Your task to perform on an android device: set an alarm Image 0: 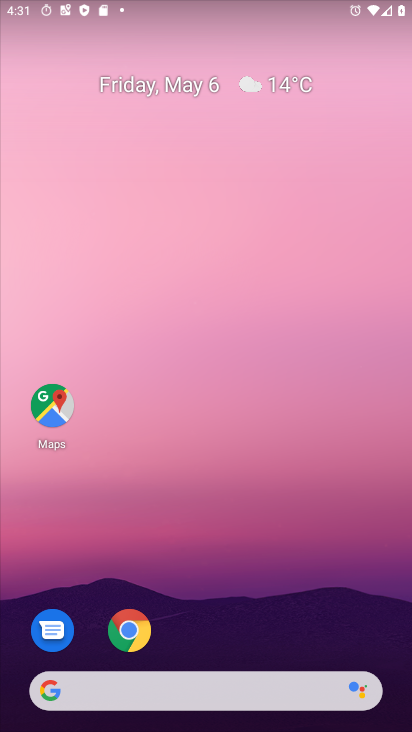
Step 0: drag from (221, 655) to (154, 5)
Your task to perform on an android device: set an alarm Image 1: 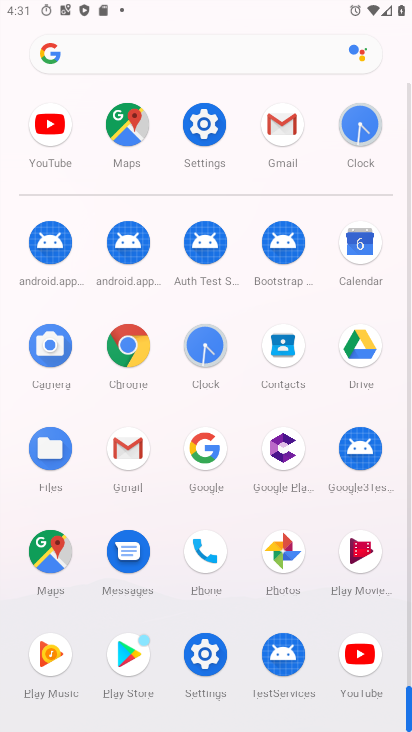
Step 1: click (196, 338)
Your task to perform on an android device: set an alarm Image 2: 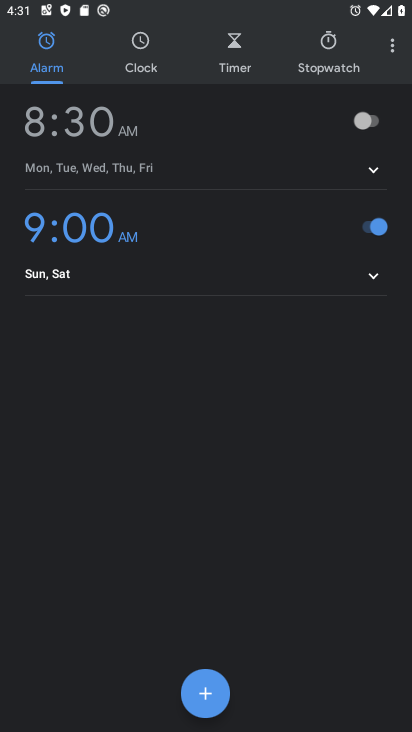
Step 2: click (364, 119)
Your task to perform on an android device: set an alarm Image 3: 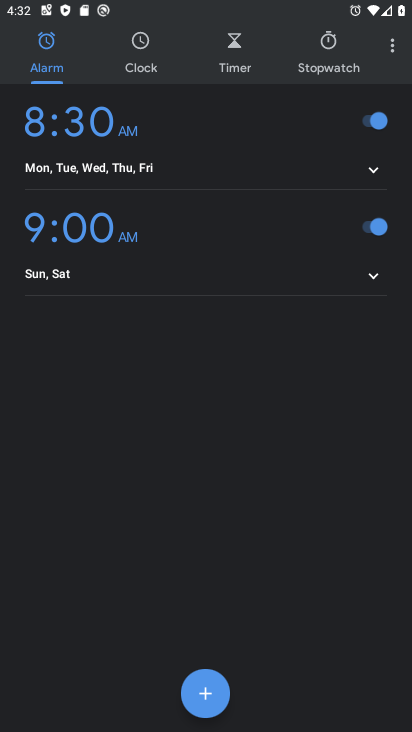
Step 3: task complete